Your task to perform on an android device: turn off location Image 0: 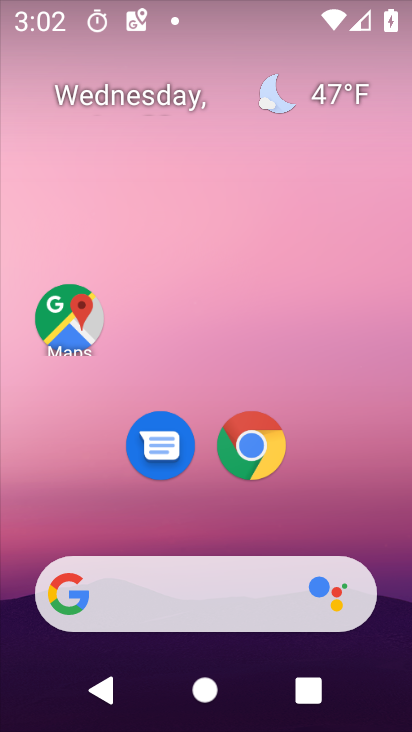
Step 0: drag from (354, 516) to (333, 22)
Your task to perform on an android device: turn off location Image 1: 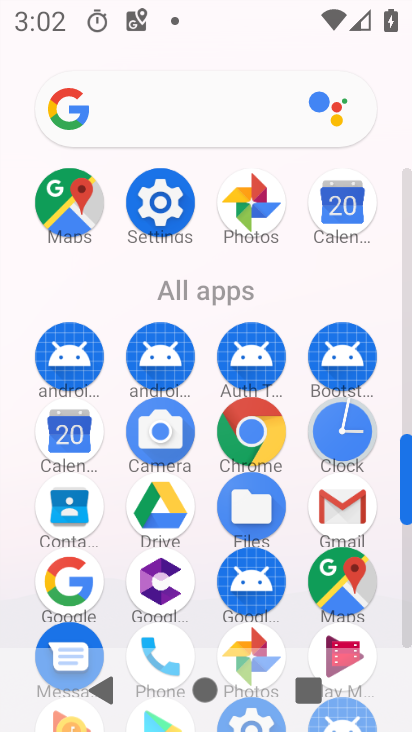
Step 1: click (178, 212)
Your task to perform on an android device: turn off location Image 2: 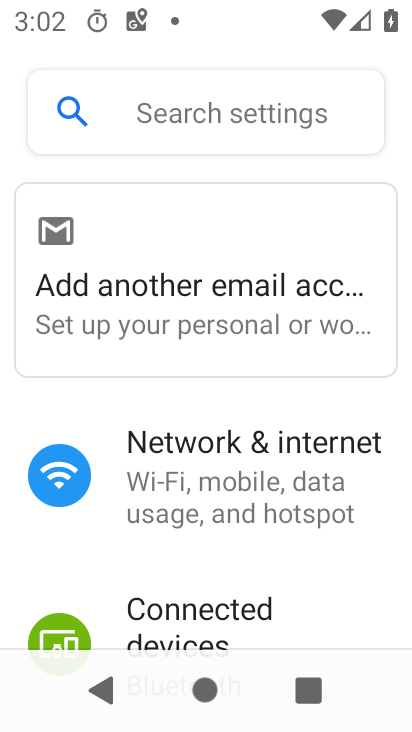
Step 2: drag from (322, 574) to (295, 122)
Your task to perform on an android device: turn off location Image 3: 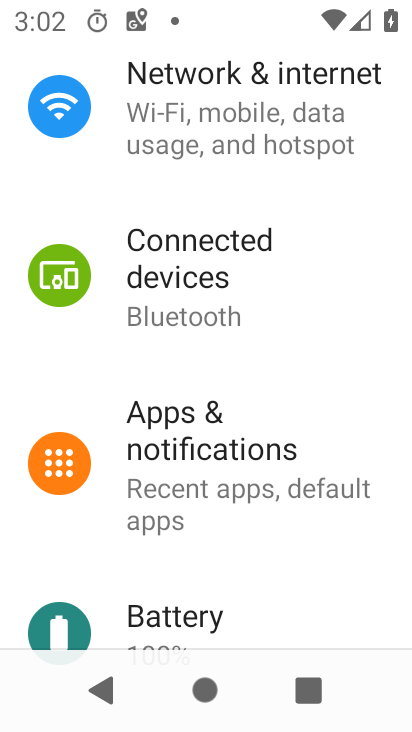
Step 3: drag from (357, 523) to (300, 157)
Your task to perform on an android device: turn off location Image 4: 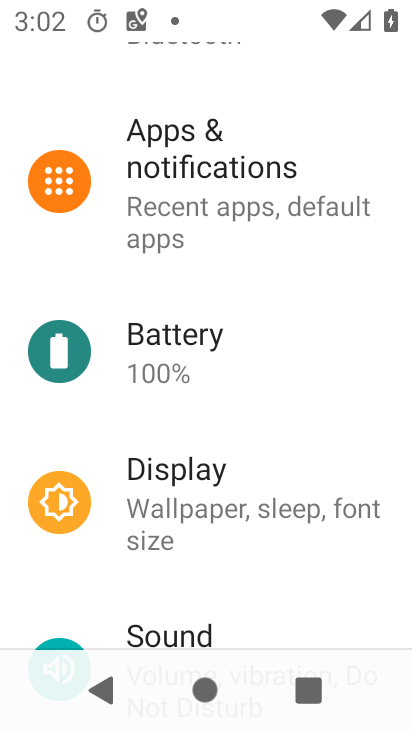
Step 4: drag from (276, 493) to (301, 79)
Your task to perform on an android device: turn off location Image 5: 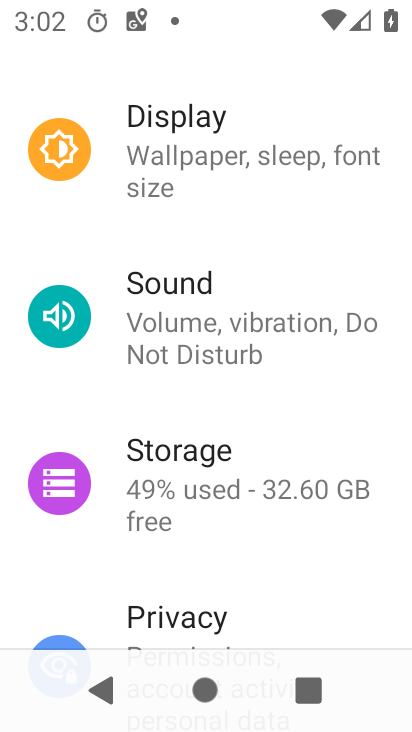
Step 5: drag from (266, 516) to (283, 165)
Your task to perform on an android device: turn off location Image 6: 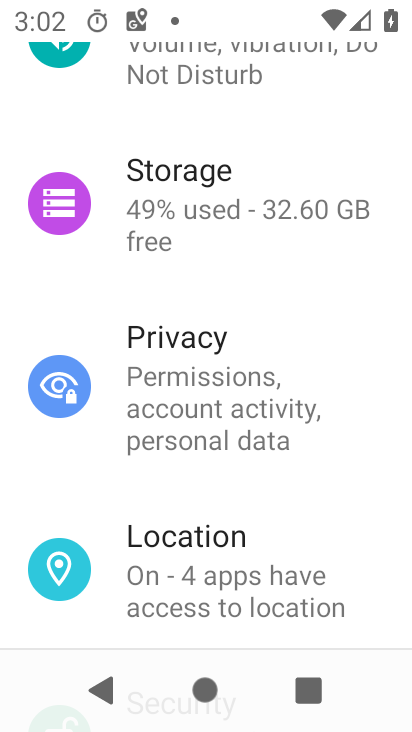
Step 6: click (196, 556)
Your task to perform on an android device: turn off location Image 7: 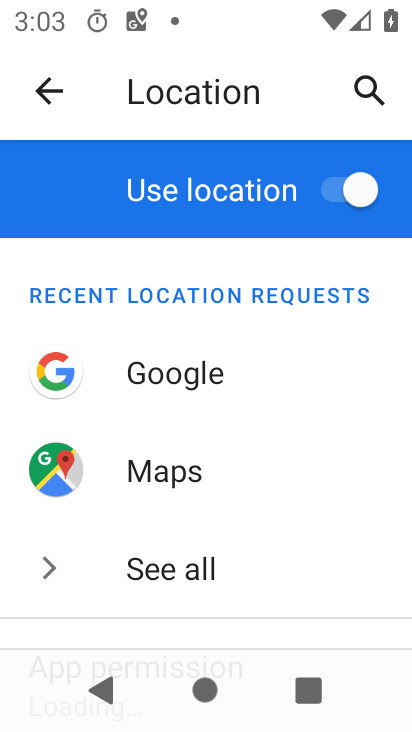
Step 7: click (350, 193)
Your task to perform on an android device: turn off location Image 8: 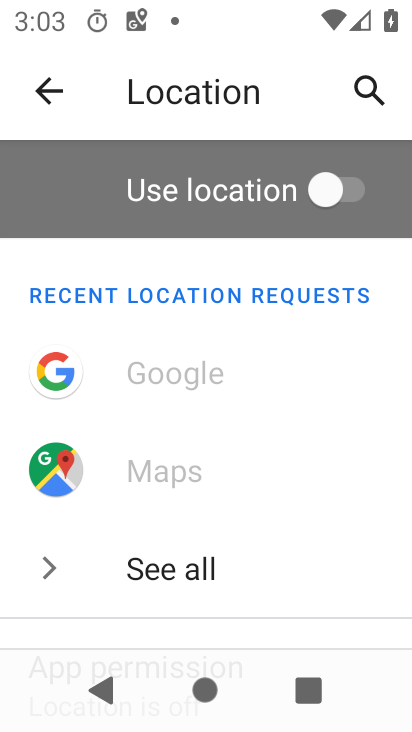
Step 8: task complete